Your task to perform on an android device: add a contact Image 0: 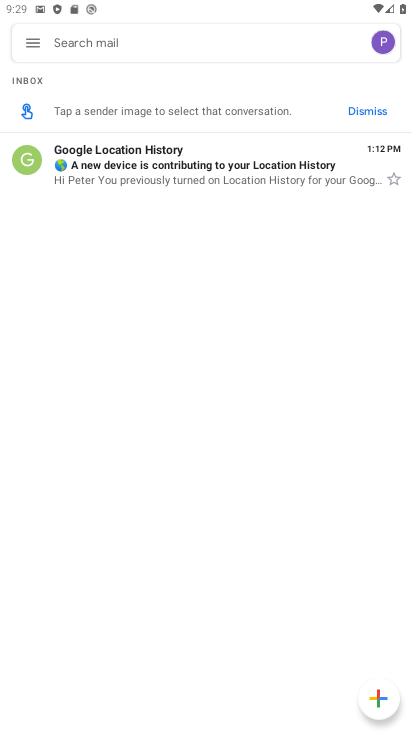
Step 0: press back button
Your task to perform on an android device: add a contact Image 1: 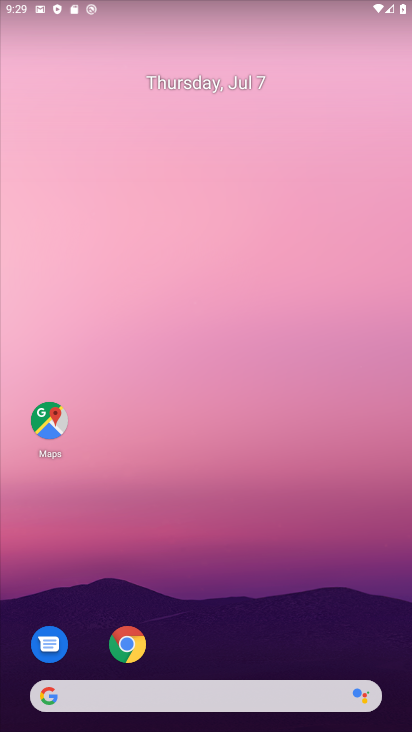
Step 1: drag from (168, 607) to (204, 40)
Your task to perform on an android device: add a contact Image 2: 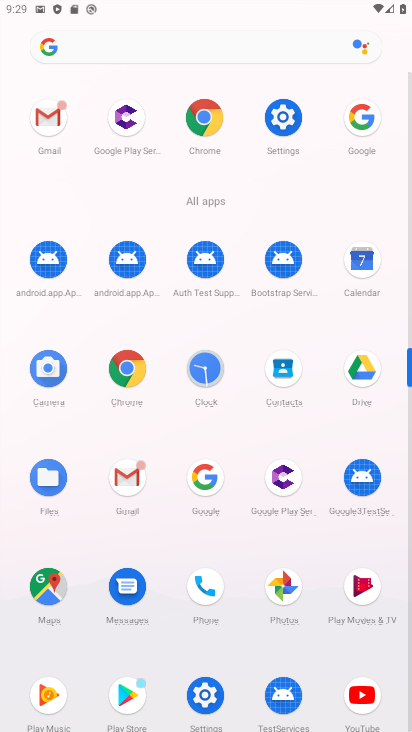
Step 2: click (278, 377)
Your task to perform on an android device: add a contact Image 3: 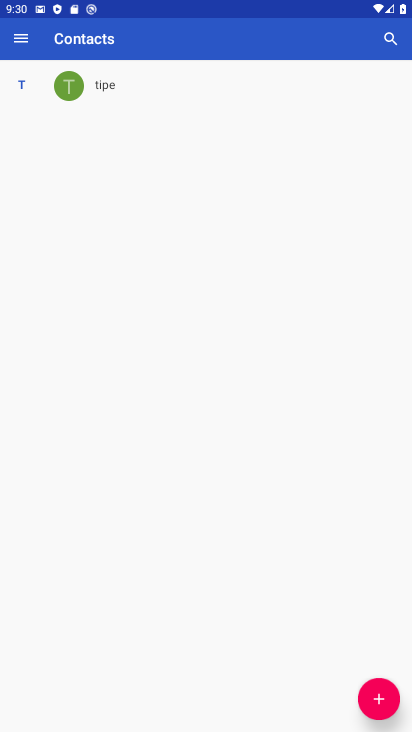
Step 3: click (375, 698)
Your task to perform on an android device: add a contact Image 4: 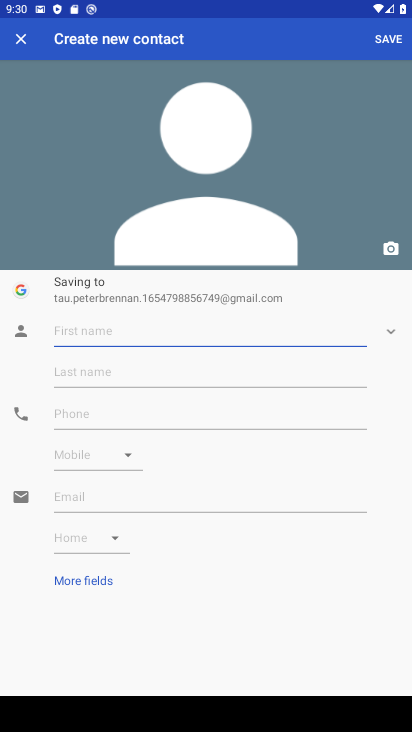
Step 4: type "Ram"
Your task to perform on an android device: add a contact Image 5: 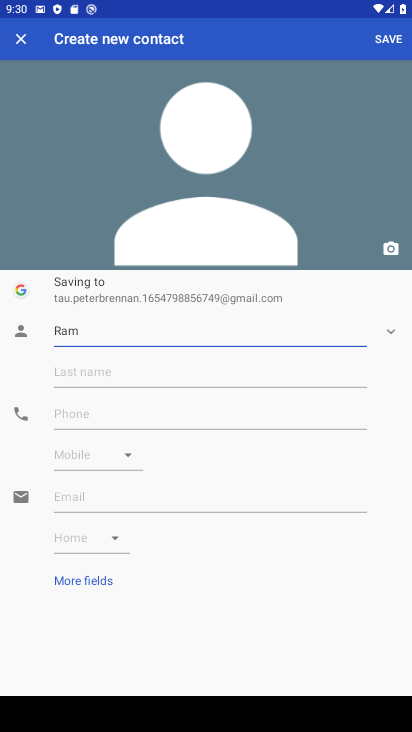
Step 5: click (121, 413)
Your task to perform on an android device: add a contact Image 6: 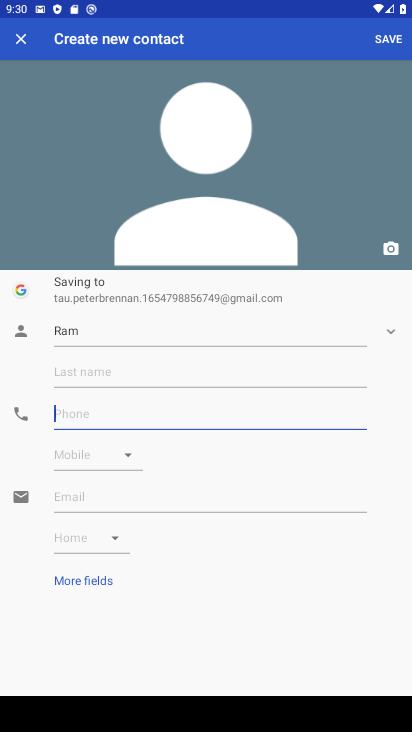
Step 6: type "8349864986"
Your task to perform on an android device: add a contact Image 7: 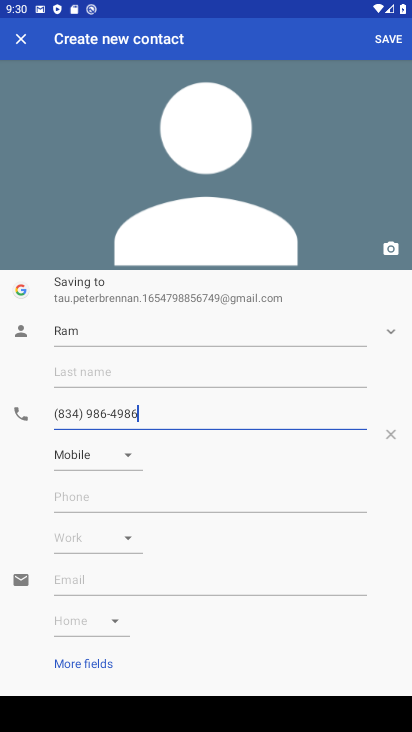
Step 7: click (389, 39)
Your task to perform on an android device: add a contact Image 8: 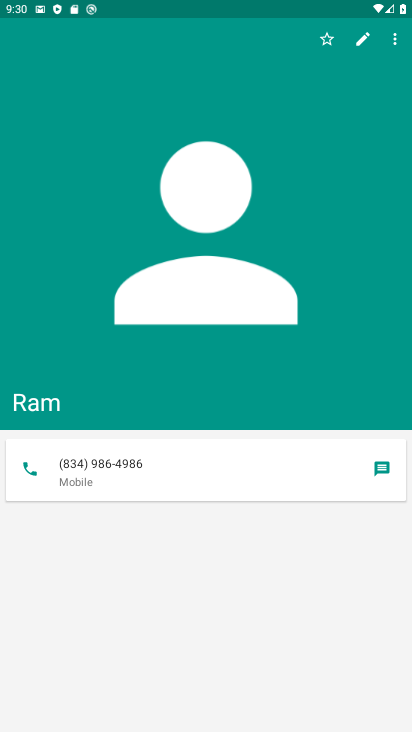
Step 8: task complete